Your task to perform on an android device: Open battery settings Image 0: 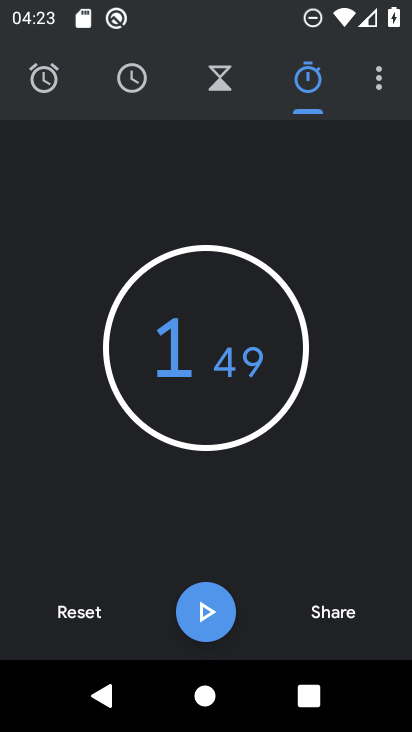
Step 0: press home button
Your task to perform on an android device: Open battery settings Image 1: 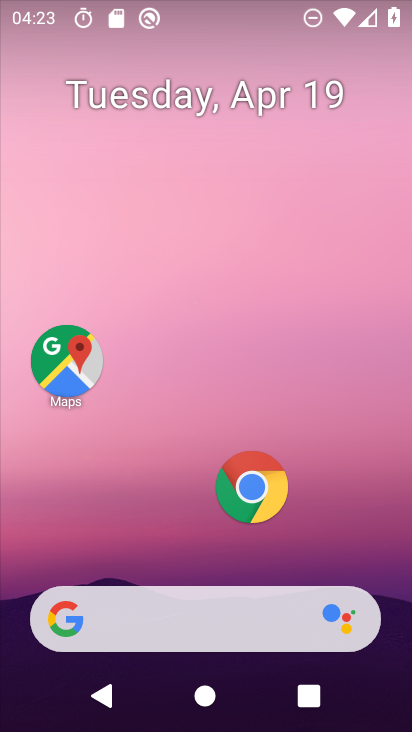
Step 1: drag from (165, 558) to (244, 33)
Your task to perform on an android device: Open battery settings Image 2: 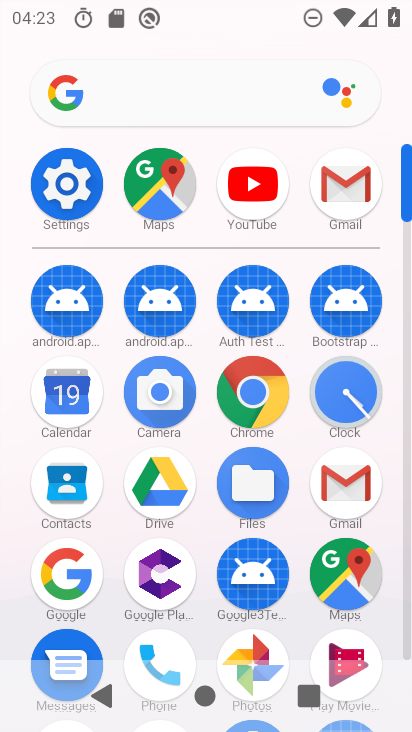
Step 2: click (70, 194)
Your task to perform on an android device: Open battery settings Image 3: 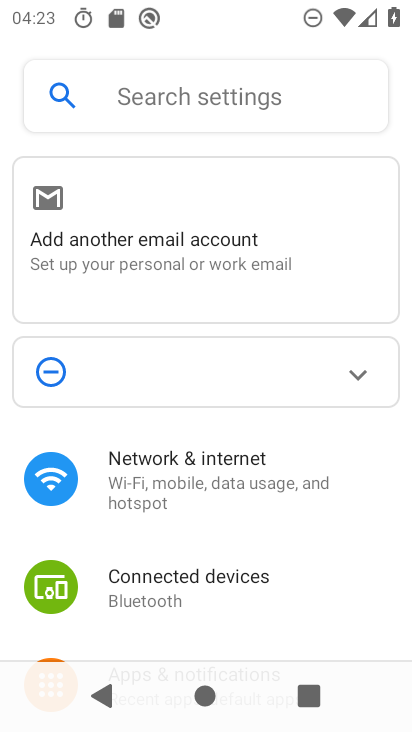
Step 3: drag from (249, 614) to (271, 149)
Your task to perform on an android device: Open battery settings Image 4: 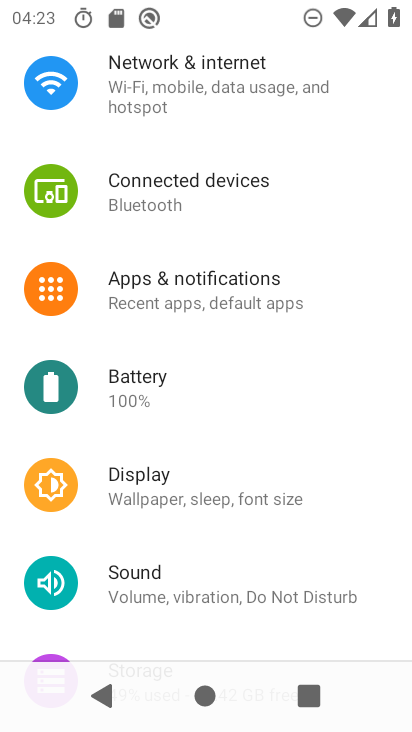
Step 4: click (134, 385)
Your task to perform on an android device: Open battery settings Image 5: 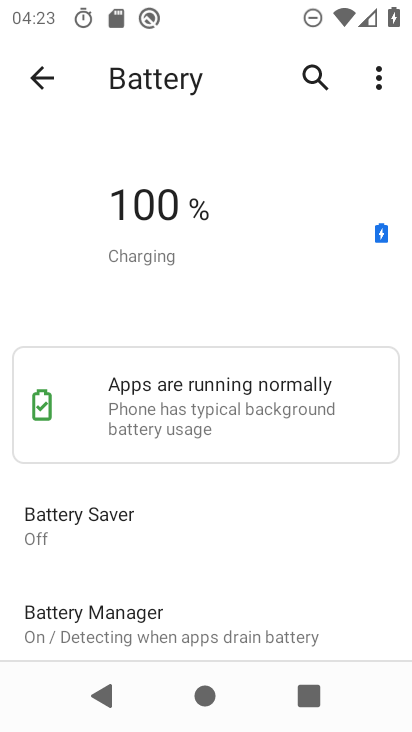
Step 5: task complete